Your task to perform on an android device: Play the new Katy Perry video on YouTube Image 0: 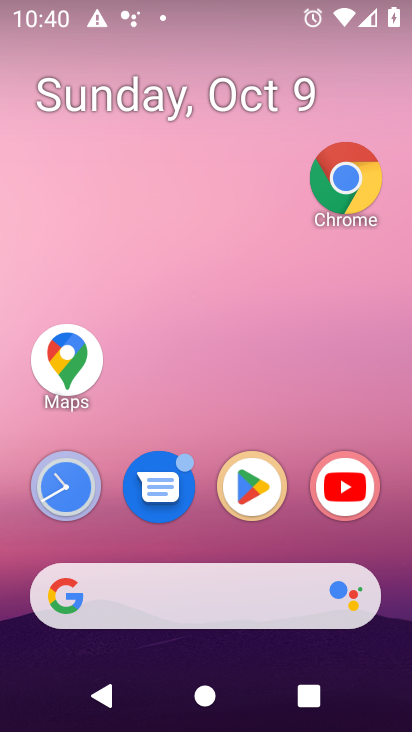
Step 0: drag from (251, 548) to (271, 134)
Your task to perform on an android device: Play the new Katy Perry video on YouTube Image 1: 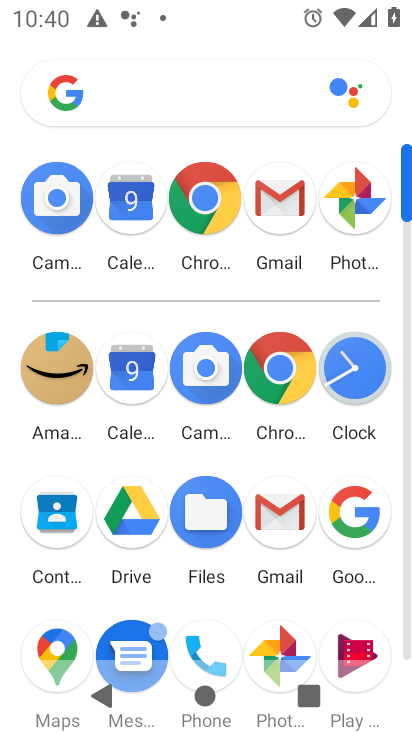
Step 1: click (353, 522)
Your task to perform on an android device: Play the new Katy Perry video on YouTube Image 2: 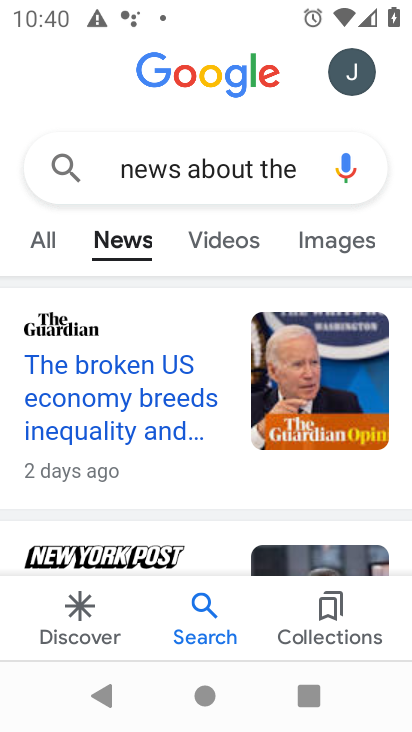
Step 2: click (278, 177)
Your task to perform on an android device: Play the new Katy Perry video on YouTube Image 3: 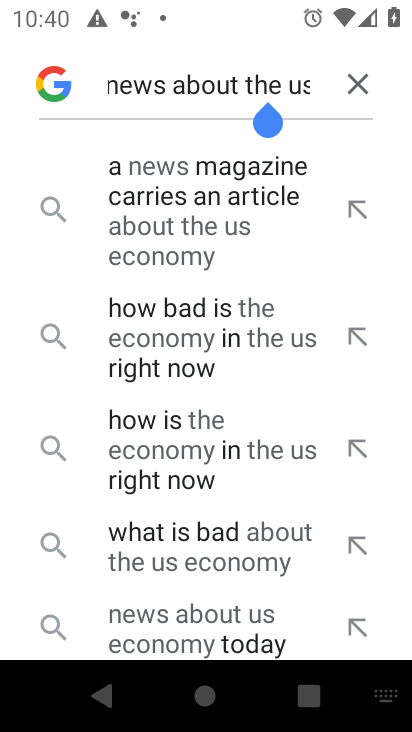
Step 3: click (364, 91)
Your task to perform on an android device: Play the new Katy Perry video on YouTube Image 4: 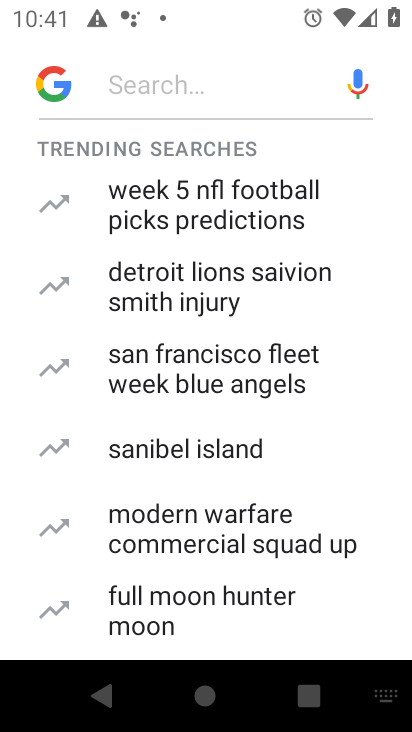
Step 4: press home button
Your task to perform on an android device: Play the new Katy Perry video on YouTube Image 5: 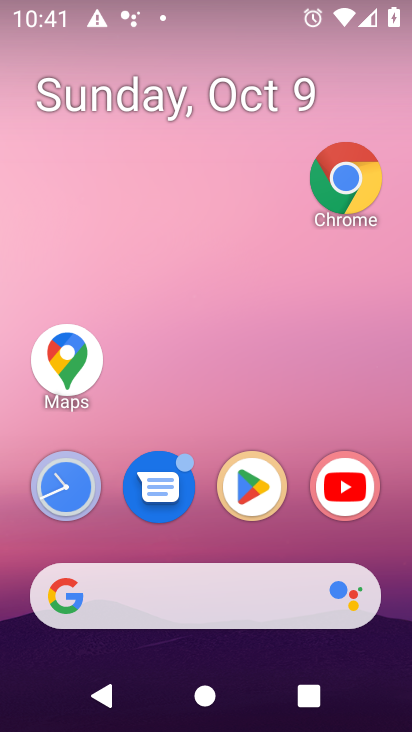
Step 5: click (345, 511)
Your task to perform on an android device: Play the new Katy Perry video on YouTube Image 6: 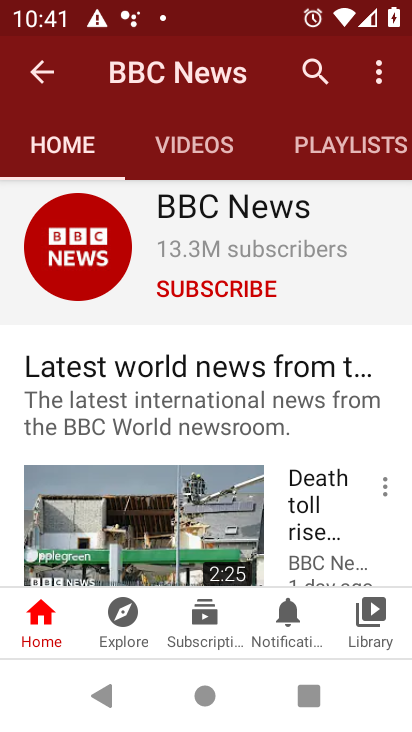
Step 6: click (50, 79)
Your task to perform on an android device: Play the new Katy Perry video on YouTube Image 7: 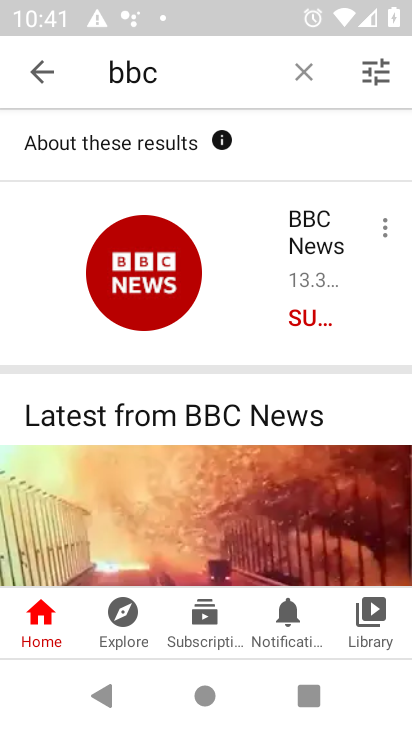
Step 7: click (50, 79)
Your task to perform on an android device: Play the new Katy Perry video on YouTube Image 8: 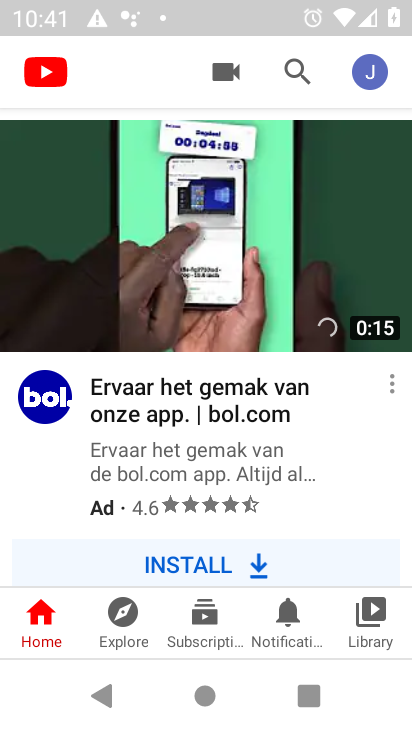
Step 8: click (299, 76)
Your task to perform on an android device: Play the new Katy Perry video on YouTube Image 9: 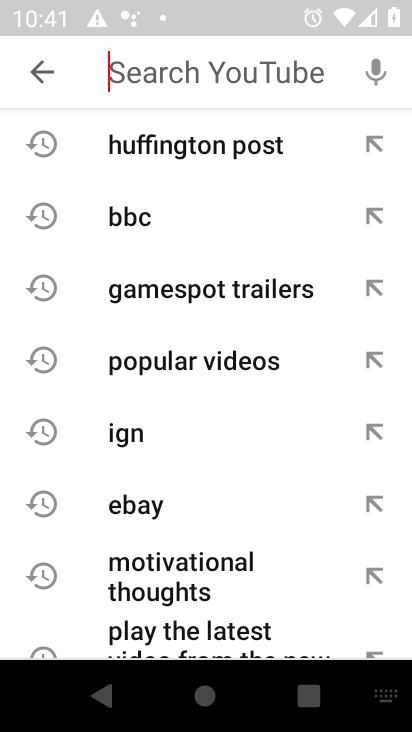
Step 9: type "new Katy Perry video"
Your task to perform on an android device: Play the new Katy Perry video on YouTube Image 10: 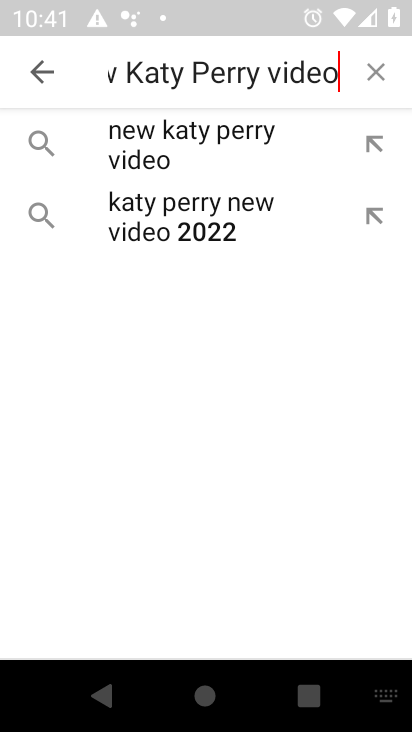
Step 10: click (250, 146)
Your task to perform on an android device: Play the new Katy Perry video on YouTube Image 11: 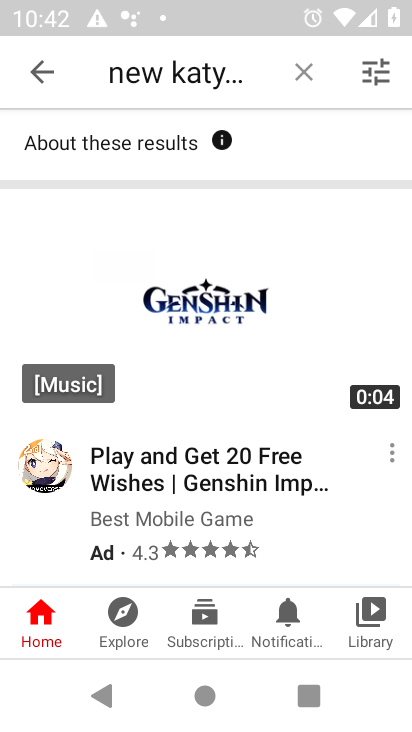
Step 11: task complete